Your task to perform on an android device: Search for sushi restaurants on Maps Image 0: 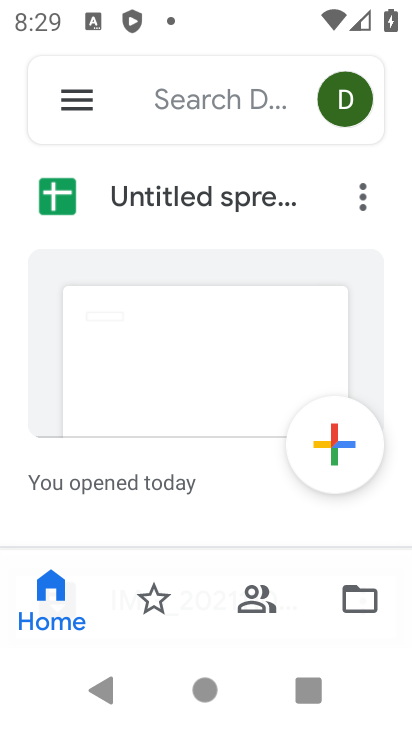
Step 0: press back button
Your task to perform on an android device: Search for sushi restaurants on Maps Image 1: 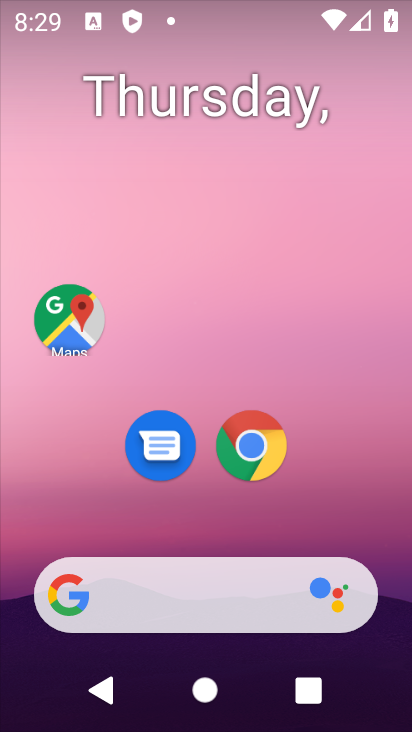
Step 1: click (82, 329)
Your task to perform on an android device: Search for sushi restaurants on Maps Image 2: 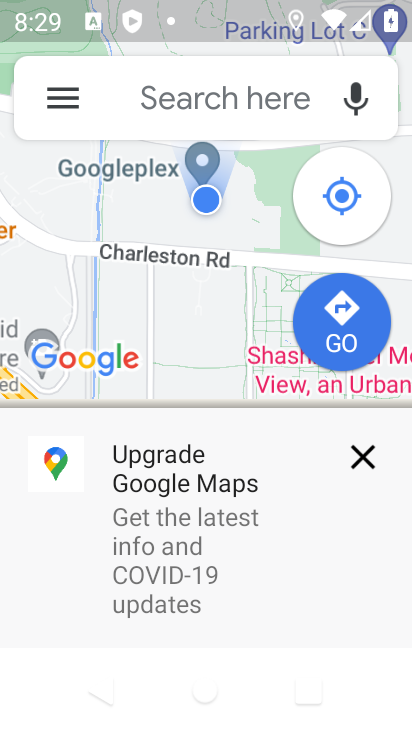
Step 2: click (246, 86)
Your task to perform on an android device: Search for sushi restaurants on Maps Image 3: 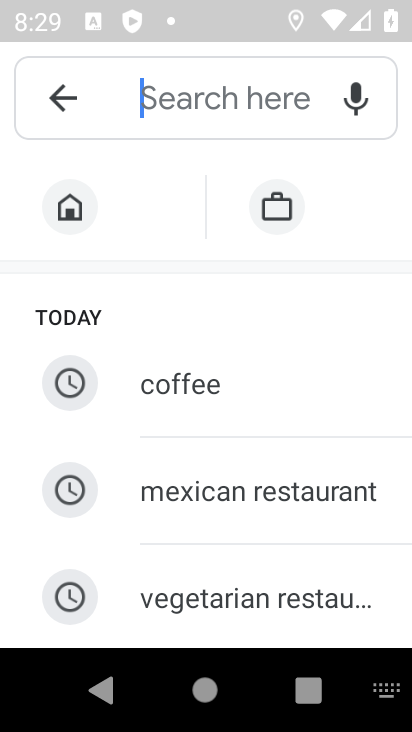
Step 3: drag from (14, 551) to (204, 205)
Your task to perform on an android device: Search for sushi restaurants on Maps Image 4: 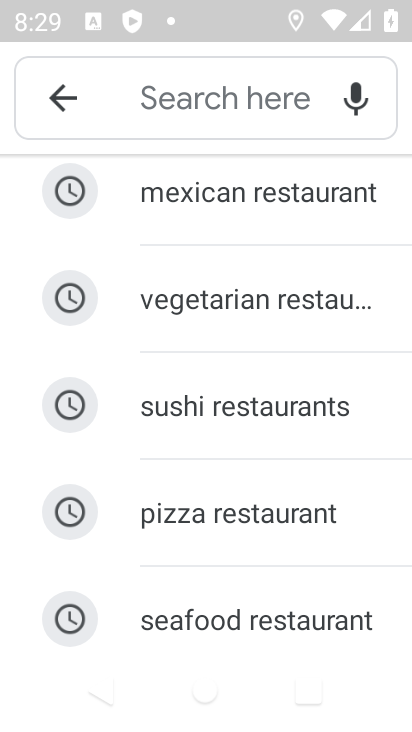
Step 4: click (225, 393)
Your task to perform on an android device: Search for sushi restaurants on Maps Image 5: 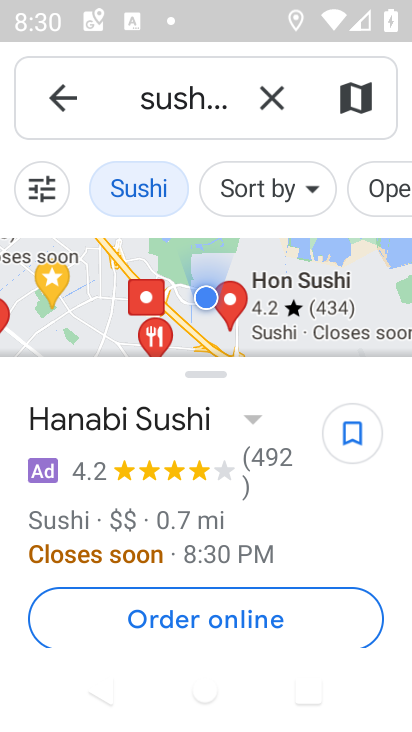
Step 5: task complete